Your task to perform on an android device: What's on my calendar today? Image 0: 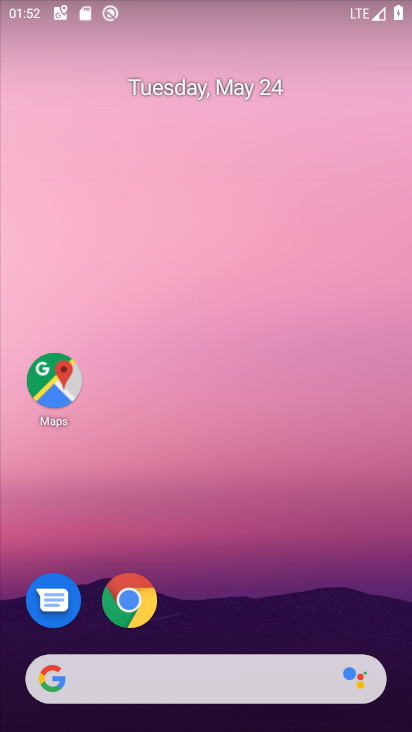
Step 0: drag from (192, 560) to (186, 427)
Your task to perform on an android device: What's on my calendar today? Image 1: 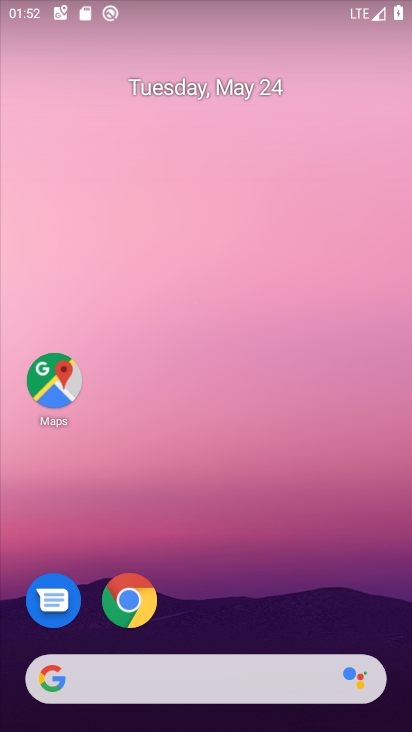
Step 1: drag from (222, 659) to (245, 162)
Your task to perform on an android device: What's on my calendar today? Image 2: 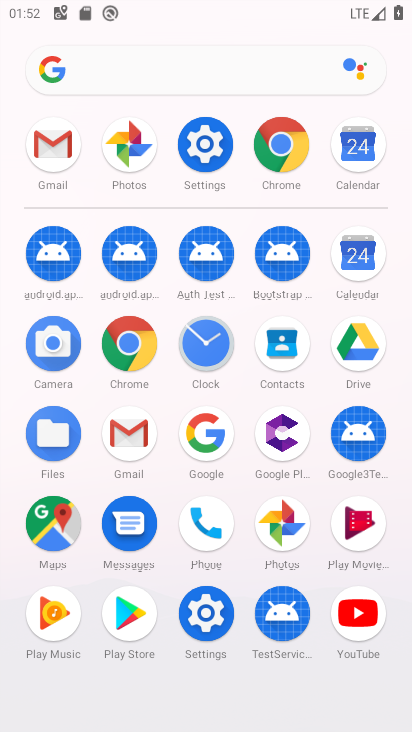
Step 2: click (347, 246)
Your task to perform on an android device: What's on my calendar today? Image 3: 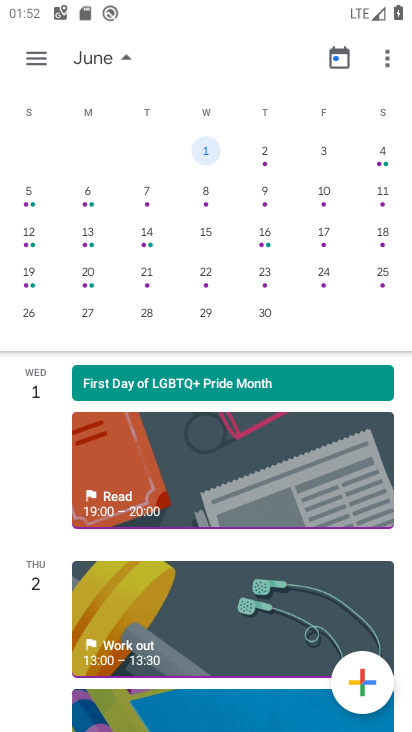
Step 3: task complete